Your task to perform on an android device: Show me the alarms in the clock app Image 0: 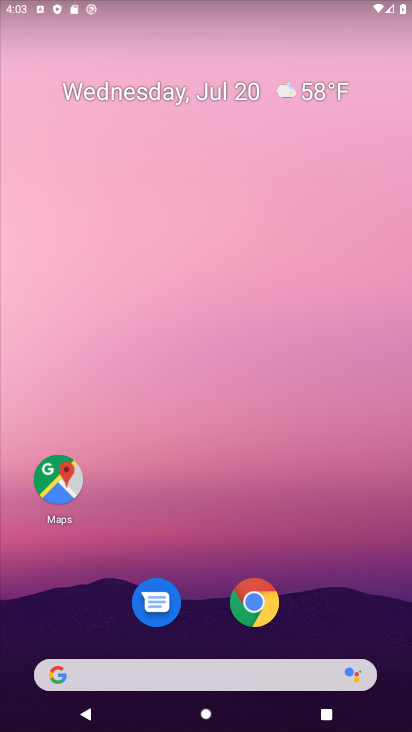
Step 0: drag from (198, 632) to (201, 324)
Your task to perform on an android device: Show me the alarms in the clock app Image 1: 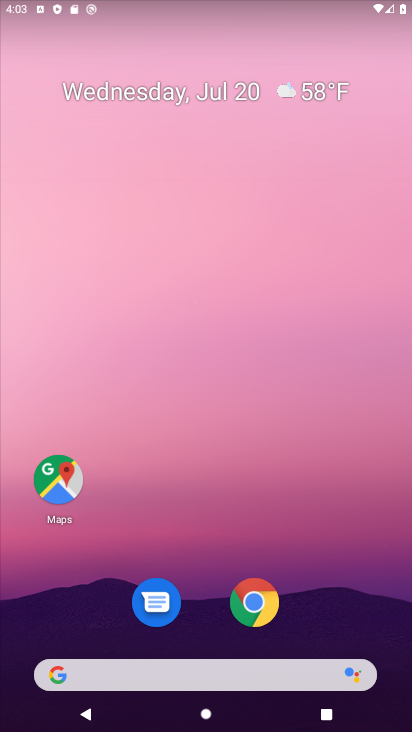
Step 1: drag from (198, 620) to (203, 183)
Your task to perform on an android device: Show me the alarms in the clock app Image 2: 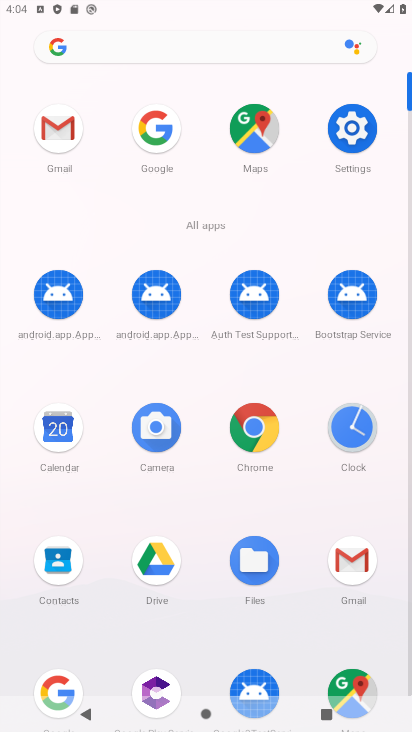
Step 2: click (357, 462)
Your task to perform on an android device: Show me the alarms in the clock app Image 3: 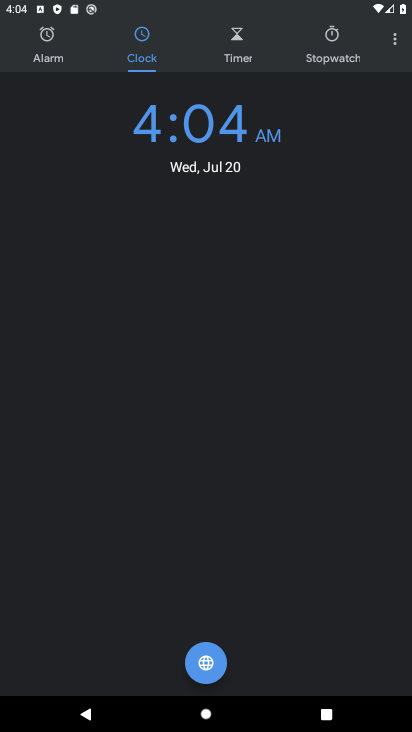
Step 3: click (49, 42)
Your task to perform on an android device: Show me the alarms in the clock app Image 4: 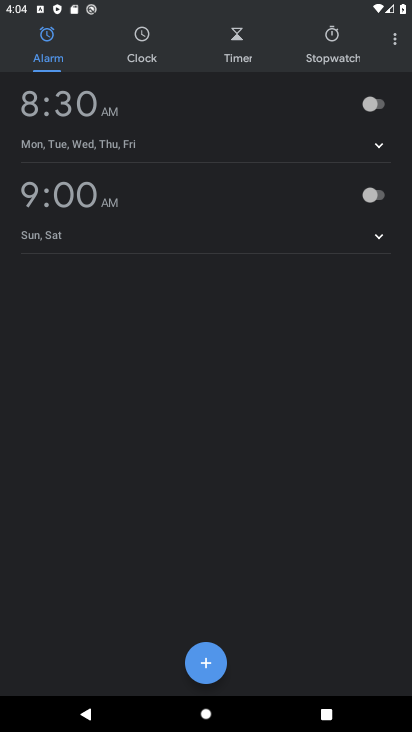
Step 4: task complete